Your task to perform on an android device: install app "Walmart Shopping & Grocery" Image 0: 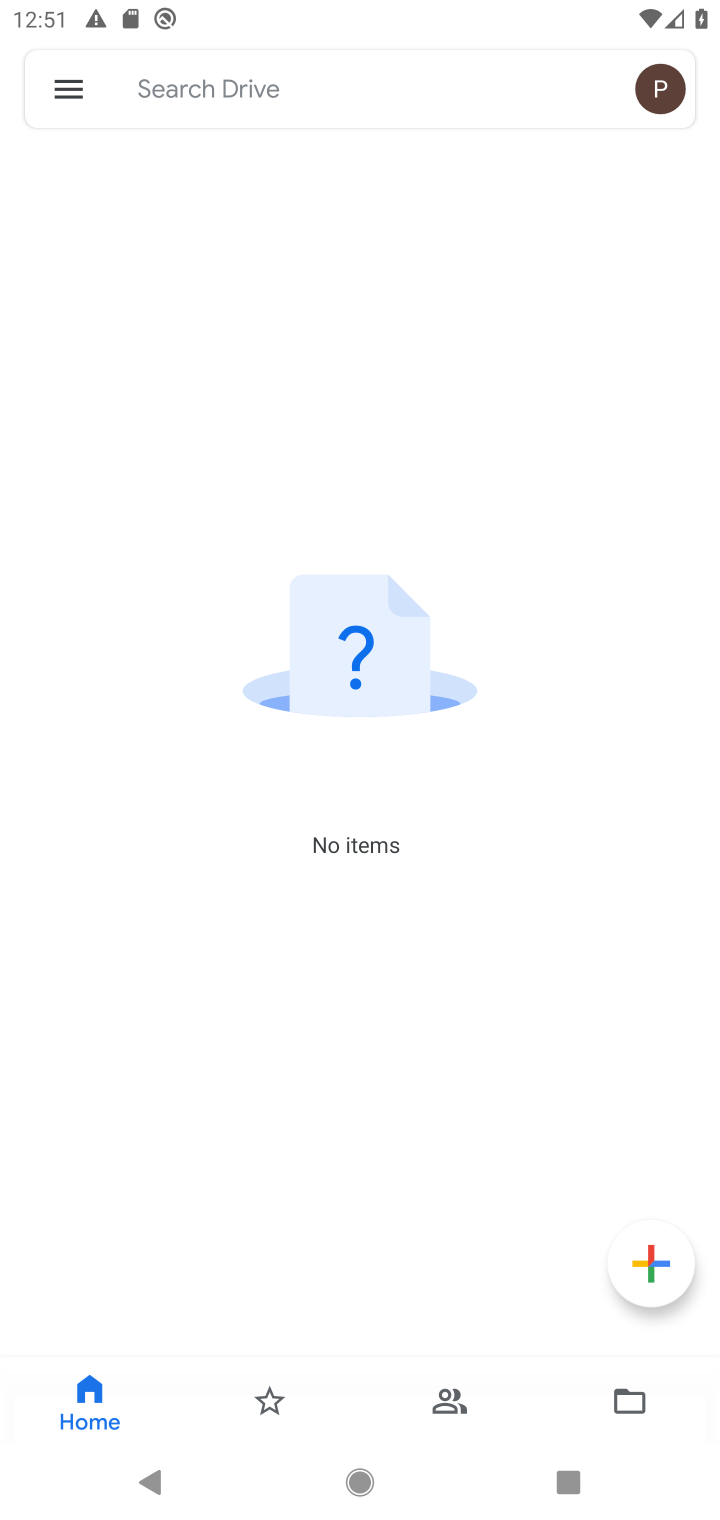
Step 0: press home button
Your task to perform on an android device: install app "Walmart Shopping & Grocery" Image 1: 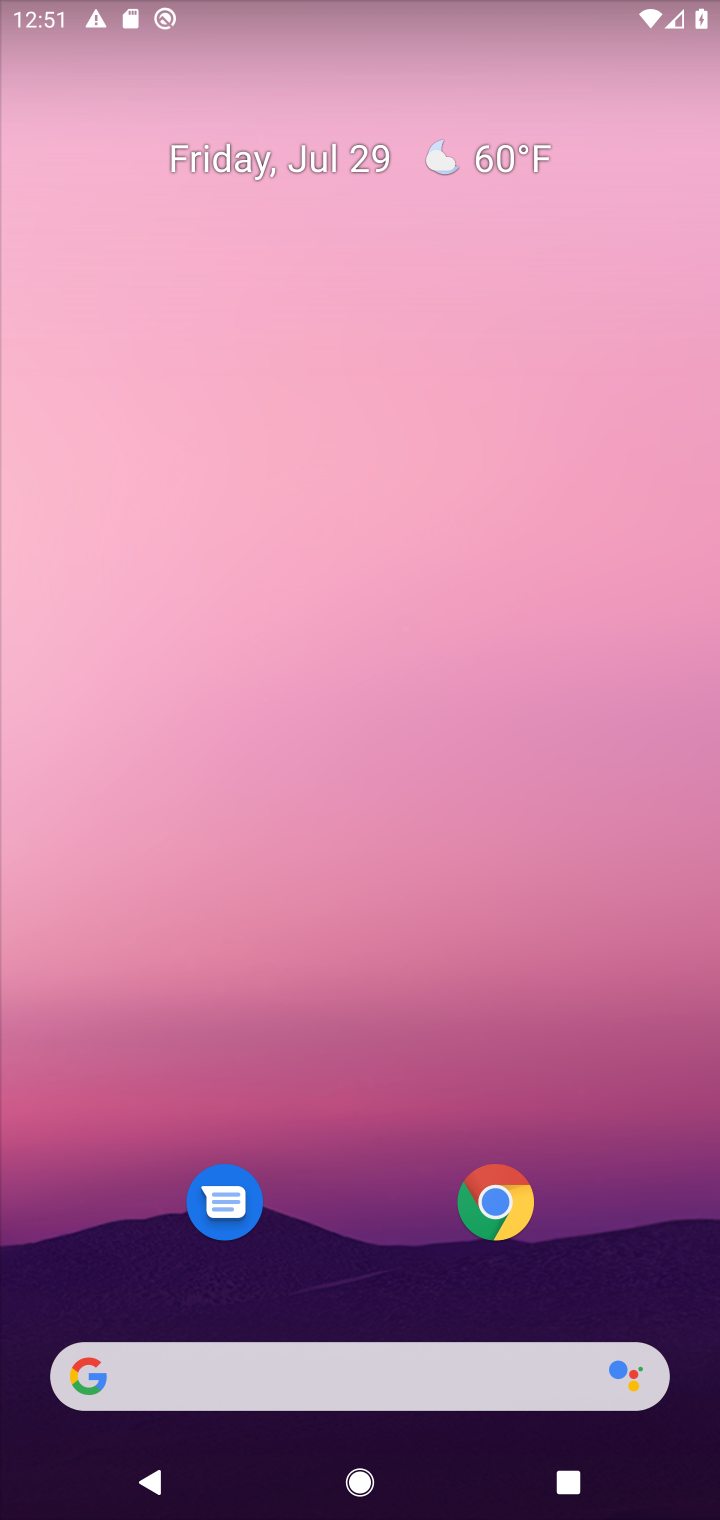
Step 1: click (396, 1368)
Your task to perform on an android device: install app "Walmart Shopping & Grocery" Image 2: 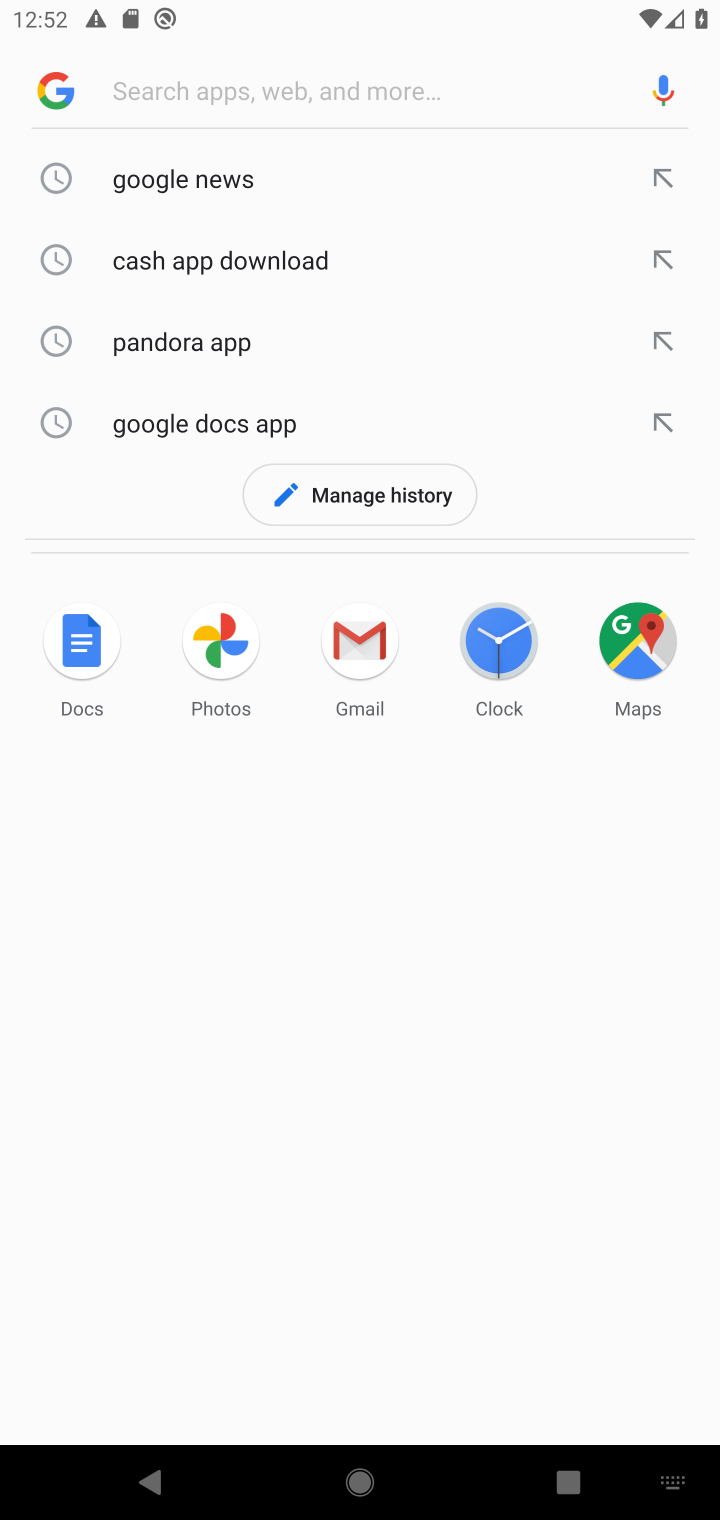
Step 2: type "walmart"
Your task to perform on an android device: install app "Walmart Shopping & Grocery" Image 3: 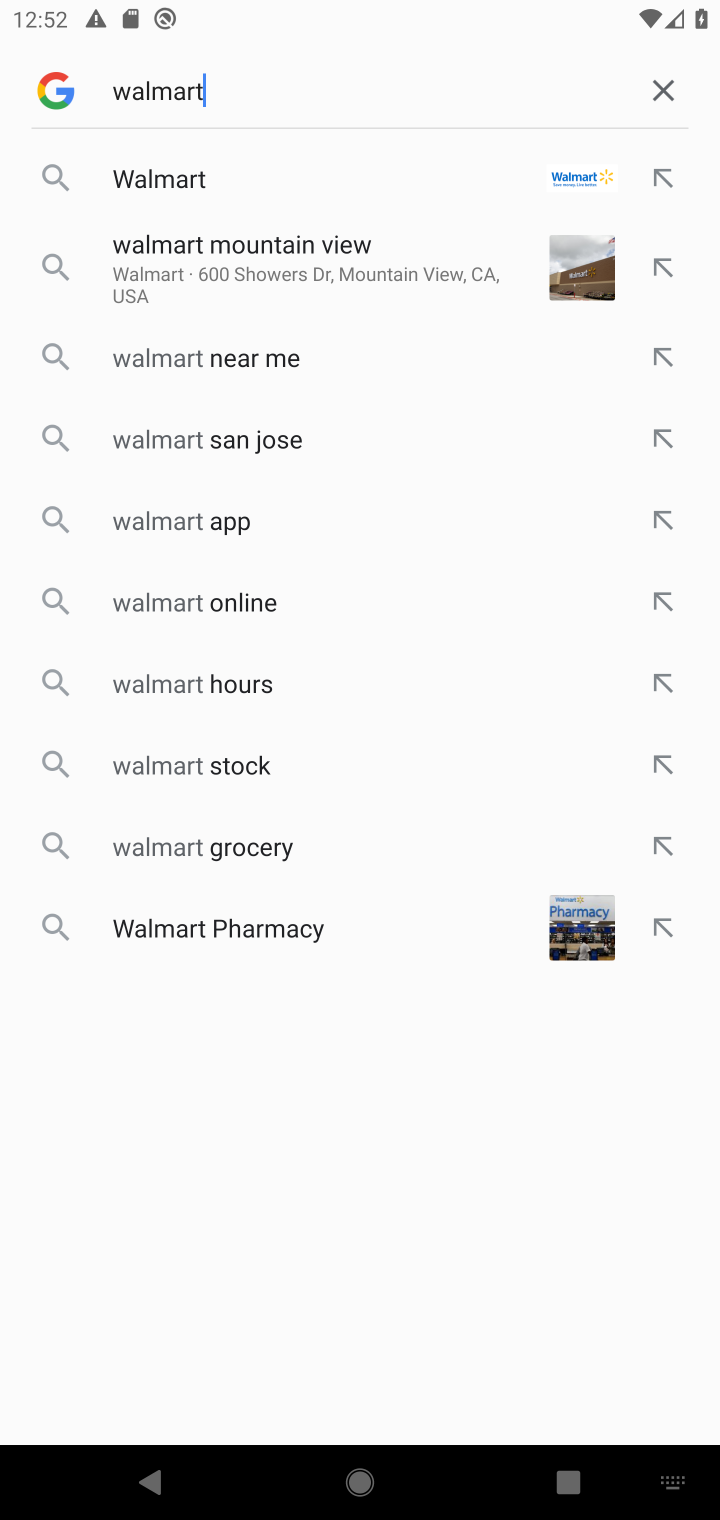
Step 3: click (320, 183)
Your task to perform on an android device: install app "Walmart Shopping & Grocery" Image 4: 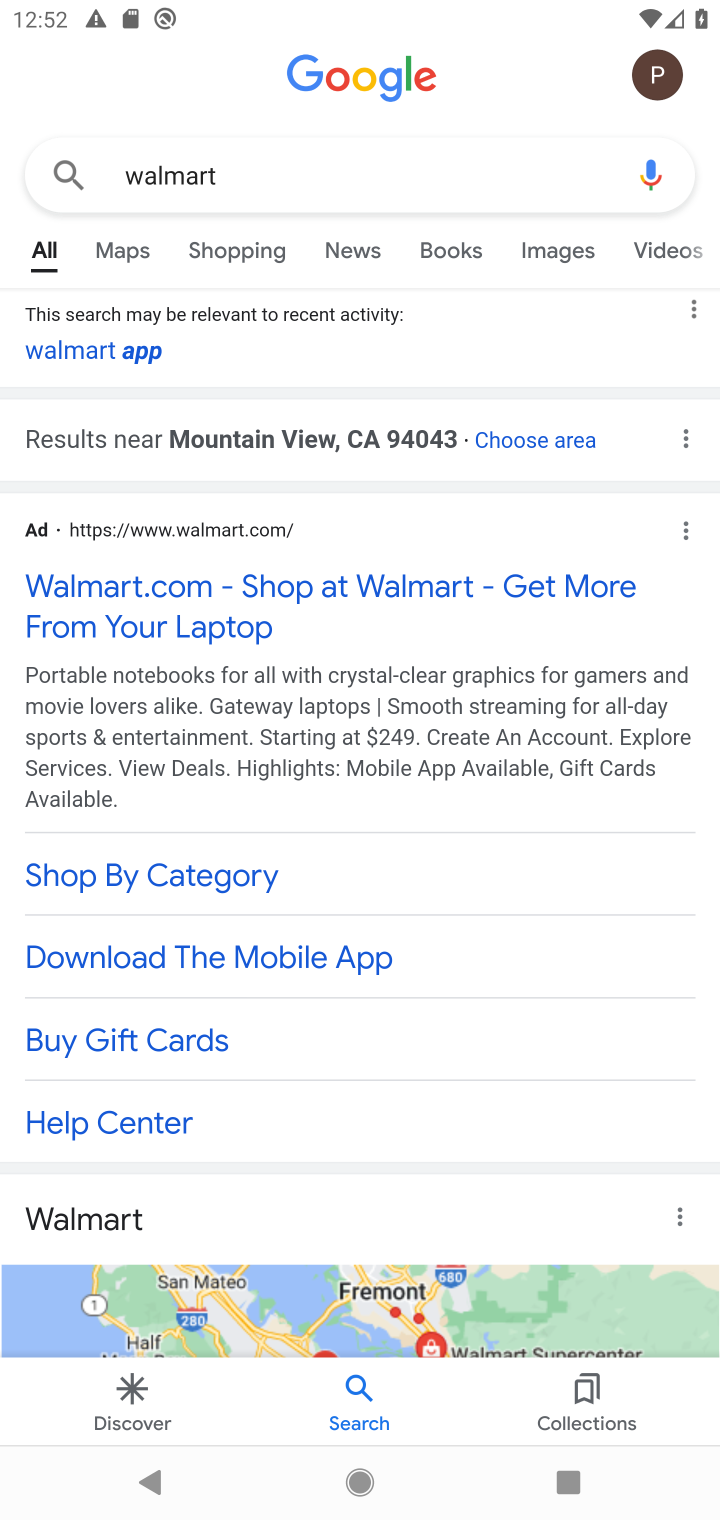
Step 4: task complete